Your task to perform on an android device: turn off wifi Image 0: 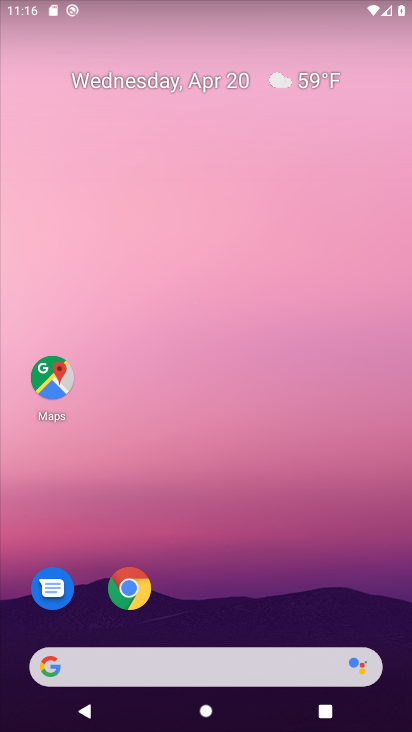
Step 0: drag from (229, 569) to (195, 0)
Your task to perform on an android device: turn off wifi Image 1: 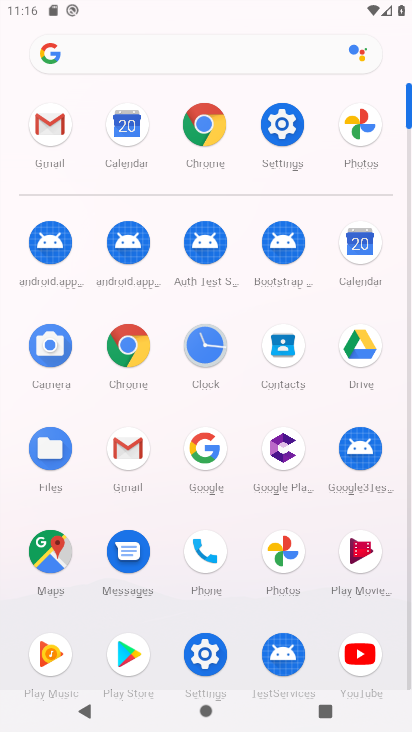
Step 1: click (279, 175)
Your task to perform on an android device: turn off wifi Image 2: 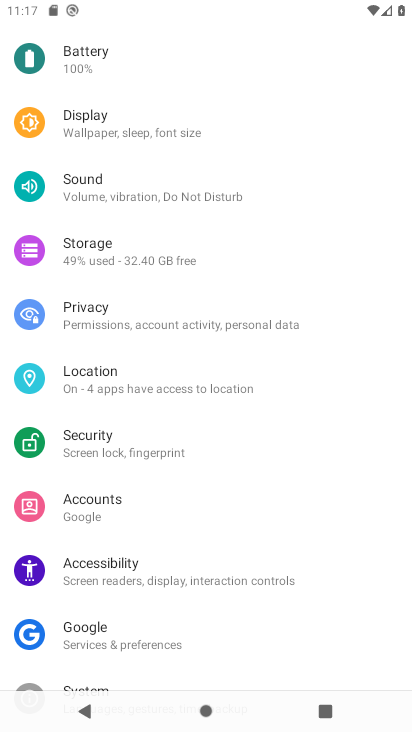
Step 2: drag from (265, 149) to (257, 728)
Your task to perform on an android device: turn off wifi Image 3: 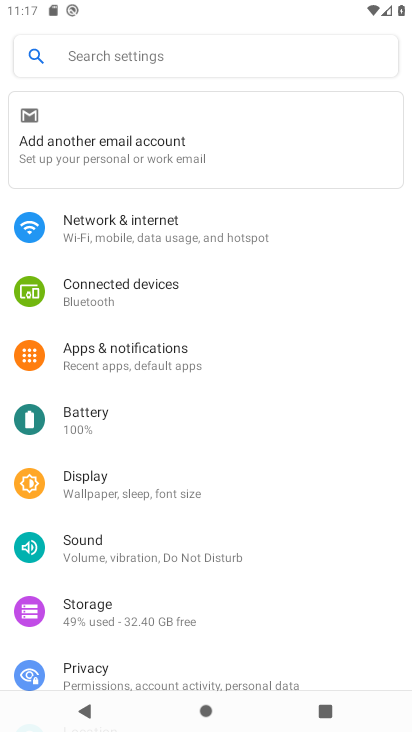
Step 3: click (142, 222)
Your task to perform on an android device: turn off wifi Image 4: 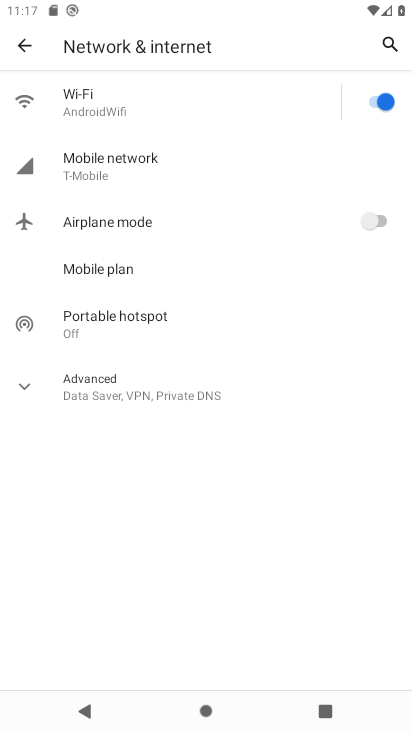
Step 4: click (380, 108)
Your task to perform on an android device: turn off wifi Image 5: 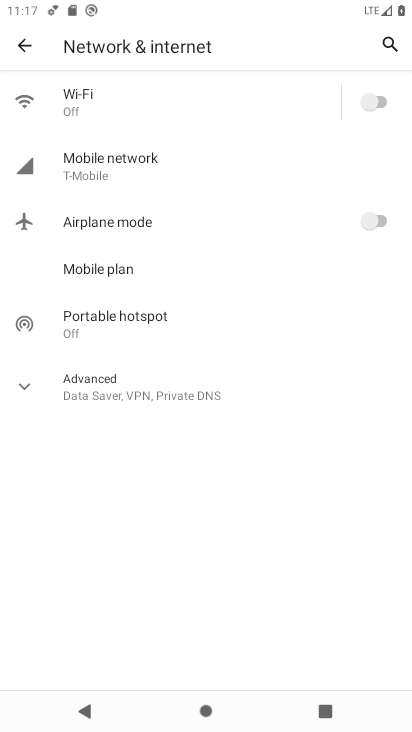
Step 5: task complete